Your task to perform on an android device: Open the Play Movies app and select the watchlist tab. Image 0: 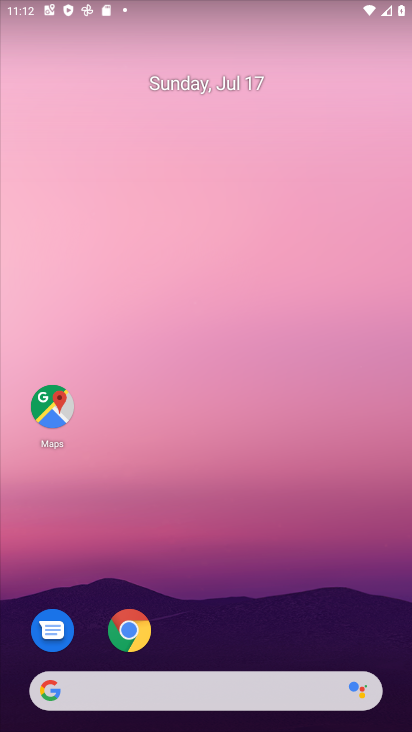
Step 0: drag from (261, 639) to (254, 63)
Your task to perform on an android device: Open the Play Movies app and select the watchlist tab. Image 1: 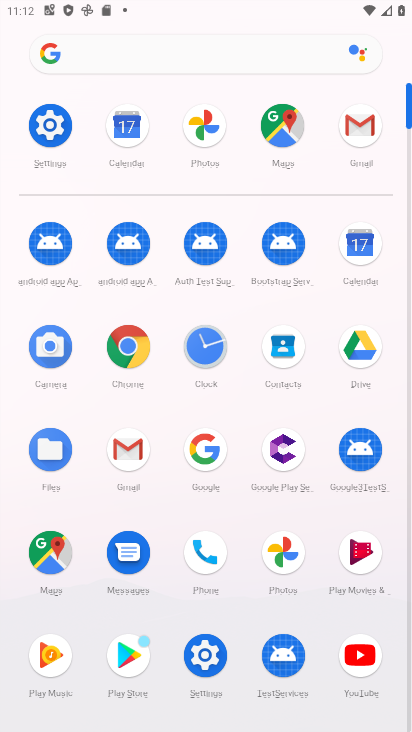
Step 1: click (365, 575)
Your task to perform on an android device: Open the Play Movies app and select the watchlist tab. Image 2: 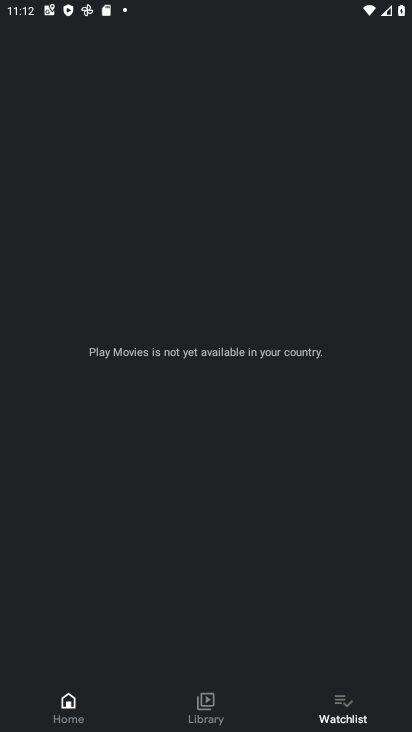
Step 2: click (343, 702)
Your task to perform on an android device: Open the Play Movies app and select the watchlist tab. Image 3: 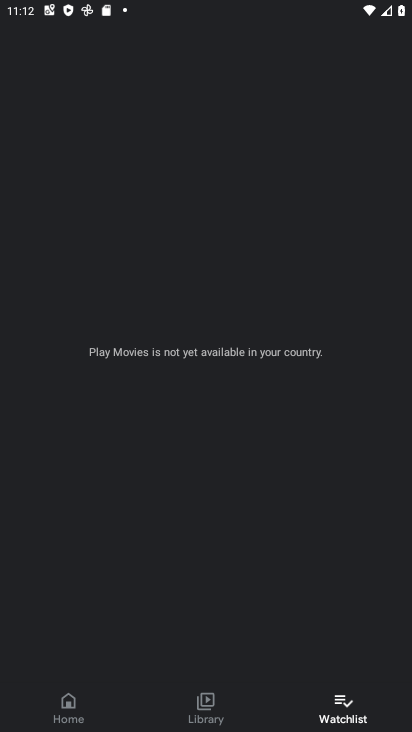
Step 3: task complete